Your task to perform on an android device: Search for lg ultragear on bestbuy.com, select the first entry, and add it to the cart. Image 0: 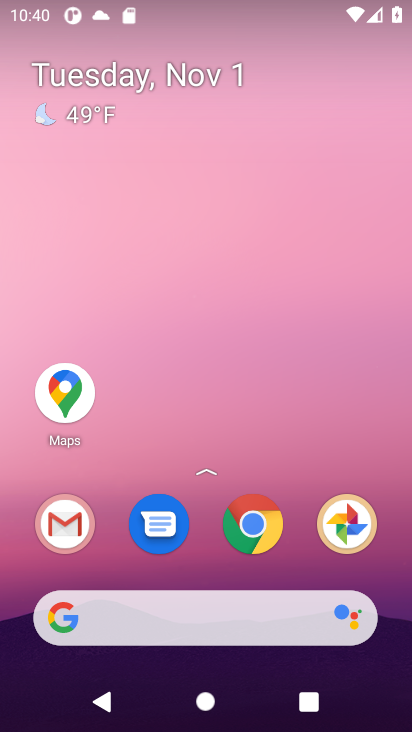
Step 0: click (104, 619)
Your task to perform on an android device: Search for lg ultragear on bestbuy.com, select the first entry, and add it to the cart. Image 1: 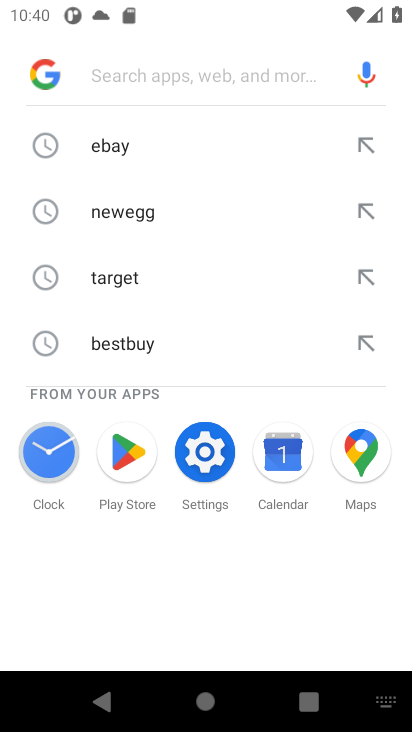
Step 1: click (135, 342)
Your task to perform on an android device: Search for lg ultragear on bestbuy.com, select the first entry, and add it to the cart. Image 2: 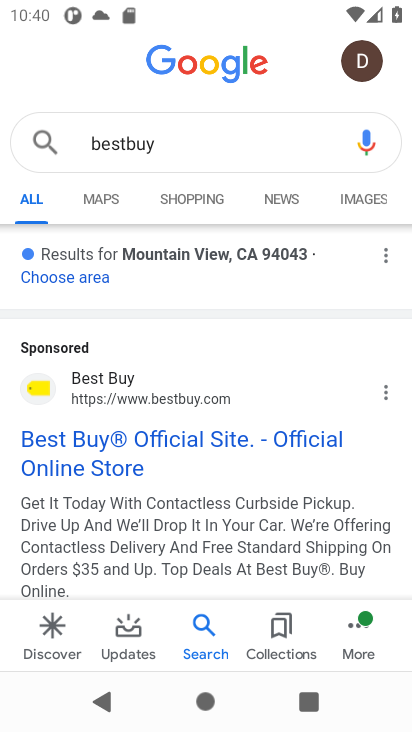
Step 2: click (190, 435)
Your task to perform on an android device: Search for lg ultragear on bestbuy.com, select the first entry, and add it to the cart. Image 3: 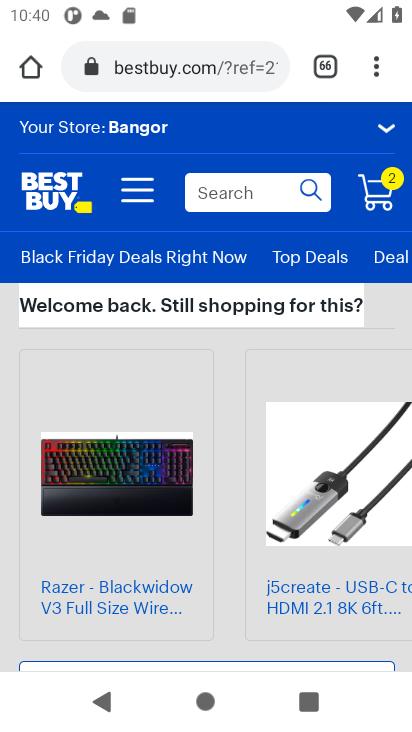
Step 3: click (217, 184)
Your task to perform on an android device: Search for lg ultragear on bestbuy.com, select the first entry, and add it to the cart. Image 4: 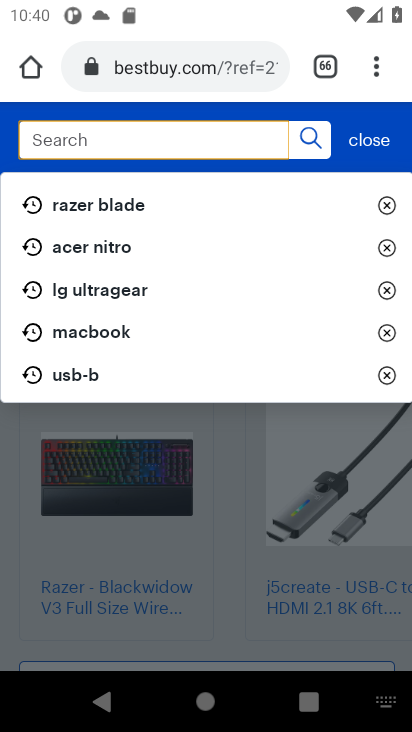
Step 4: type "lg ultragear"
Your task to perform on an android device: Search for lg ultragear on bestbuy.com, select the first entry, and add it to the cart. Image 5: 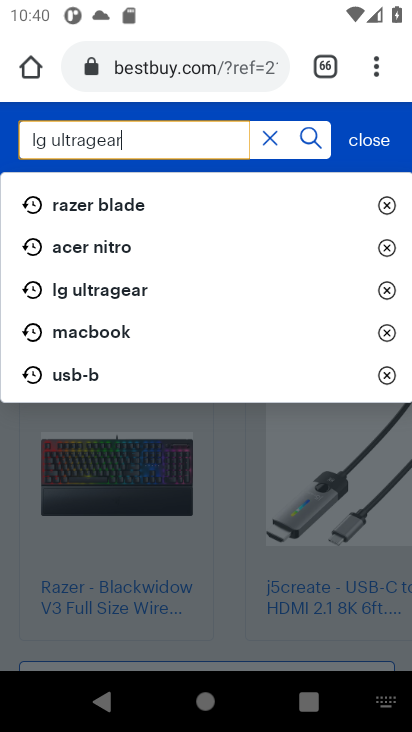
Step 5: press enter
Your task to perform on an android device: Search for lg ultragear on bestbuy.com, select the first entry, and add it to the cart. Image 6: 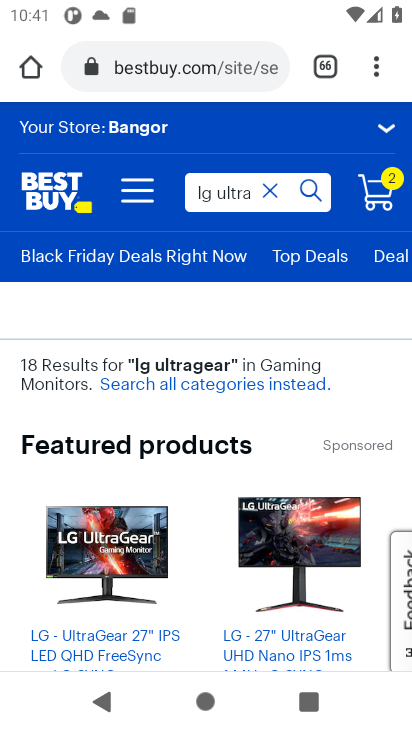
Step 6: drag from (158, 510) to (166, 413)
Your task to perform on an android device: Search for lg ultragear on bestbuy.com, select the first entry, and add it to the cart. Image 7: 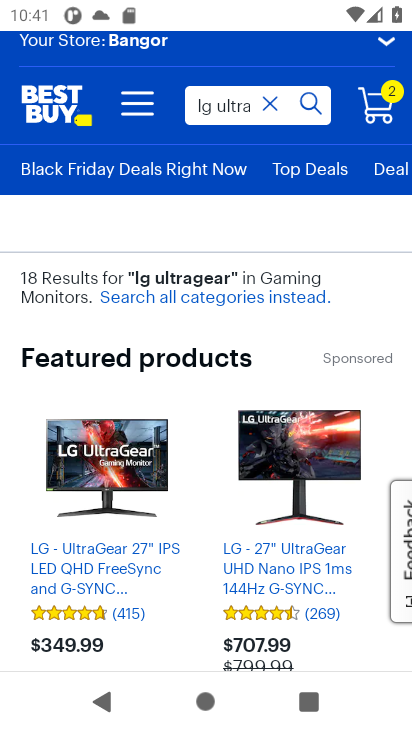
Step 7: drag from (162, 595) to (163, 365)
Your task to perform on an android device: Search for lg ultragear on bestbuy.com, select the first entry, and add it to the cart. Image 8: 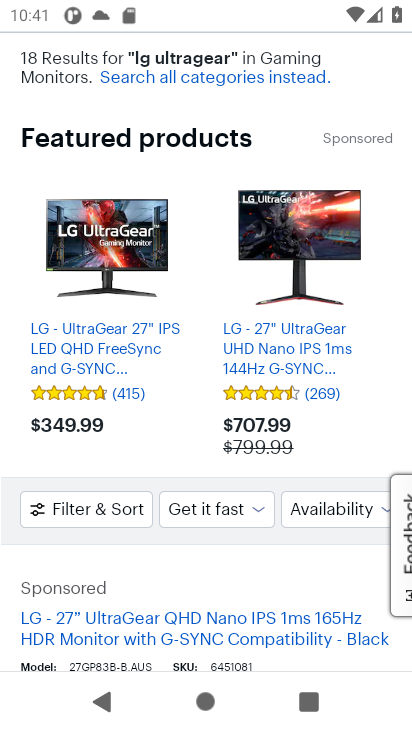
Step 8: drag from (166, 617) to (162, 374)
Your task to perform on an android device: Search for lg ultragear on bestbuy.com, select the first entry, and add it to the cart. Image 9: 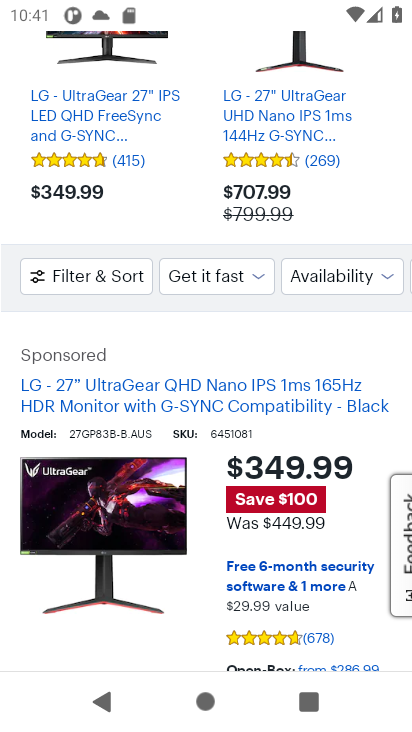
Step 9: drag from (227, 589) to (197, 366)
Your task to perform on an android device: Search for lg ultragear on bestbuy.com, select the first entry, and add it to the cart. Image 10: 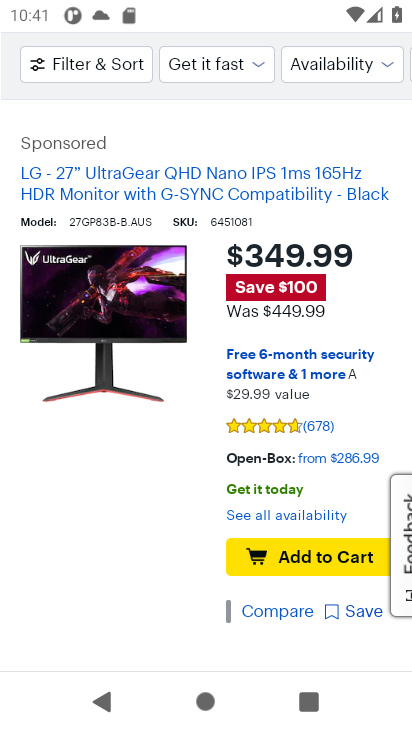
Step 10: click (309, 560)
Your task to perform on an android device: Search for lg ultragear on bestbuy.com, select the first entry, and add it to the cart. Image 11: 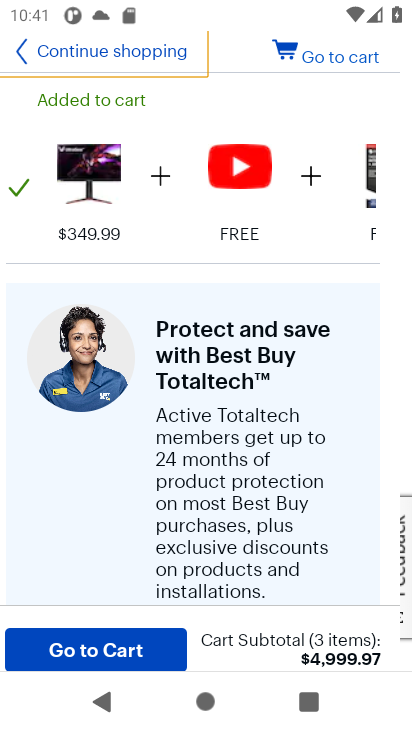
Step 11: task complete